Your task to perform on an android device: change keyboard looks Image 0: 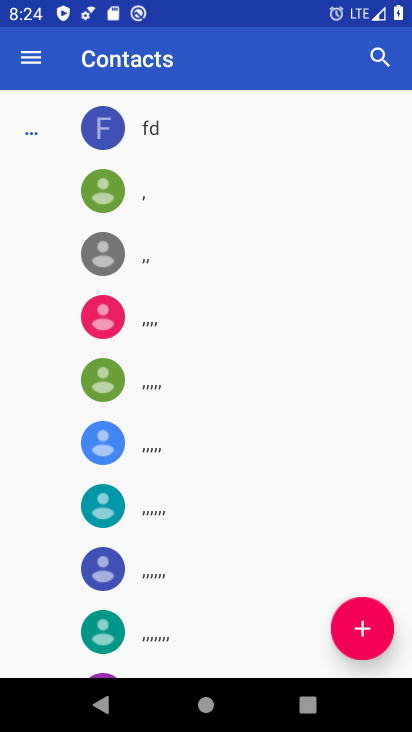
Step 0: press back button
Your task to perform on an android device: change keyboard looks Image 1: 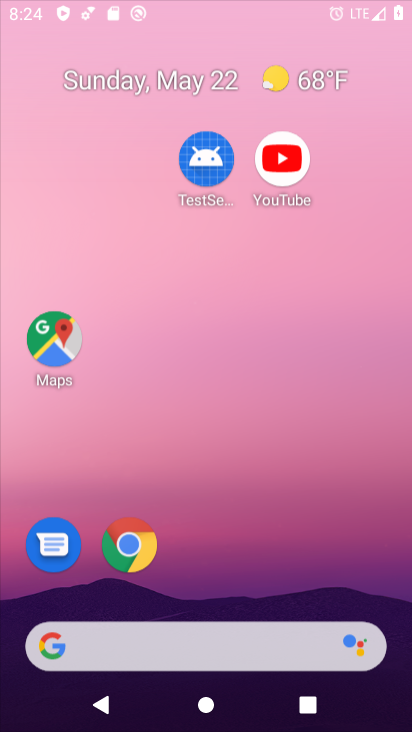
Step 1: press home button
Your task to perform on an android device: change keyboard looks Image 2: 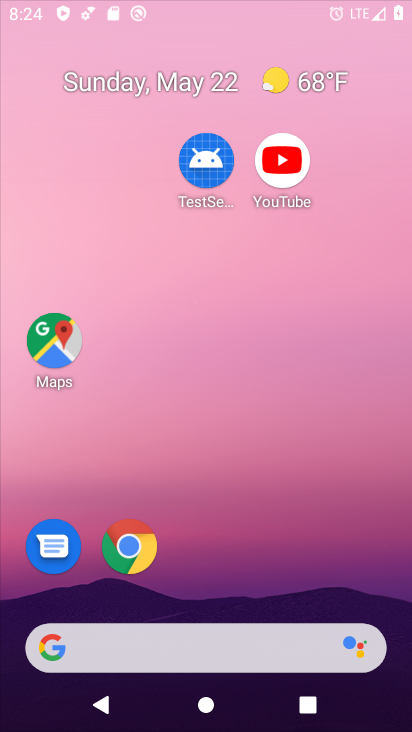
Step 2: press home button
Your task to perform on an android device: change keyboard looks Image 3: 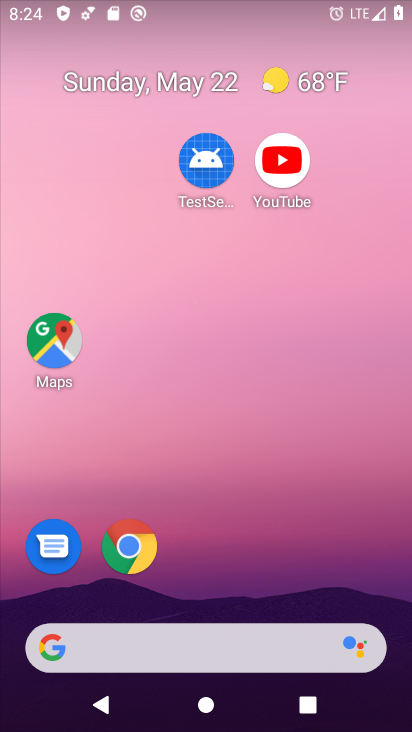
Step 3: press home button
Your task to perform on an android device: change keyboard looks Image 4: 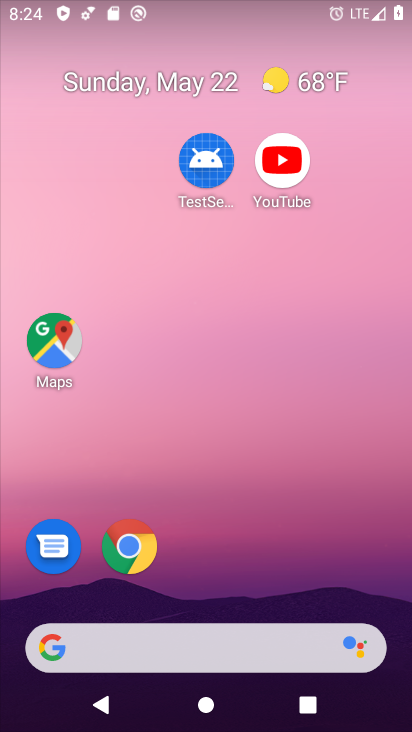
Step 4: drag from (293, 695) to (133, 144)
Your task to perform on an android device: change keyboard looks Image 5: 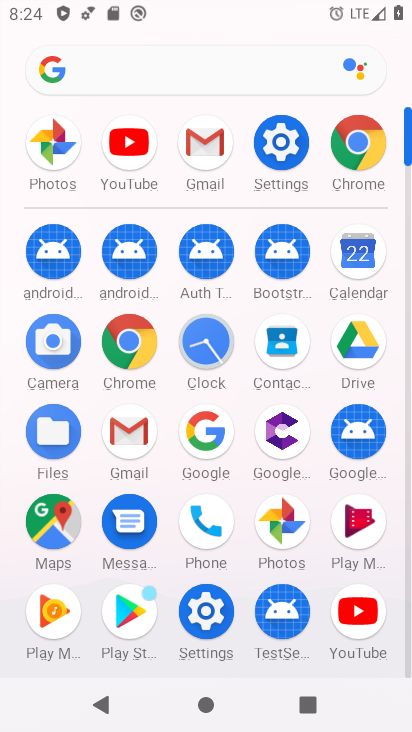
Step 5: click (277, 145)
Your task to perform on an android device: change keyboard looks Image 6: 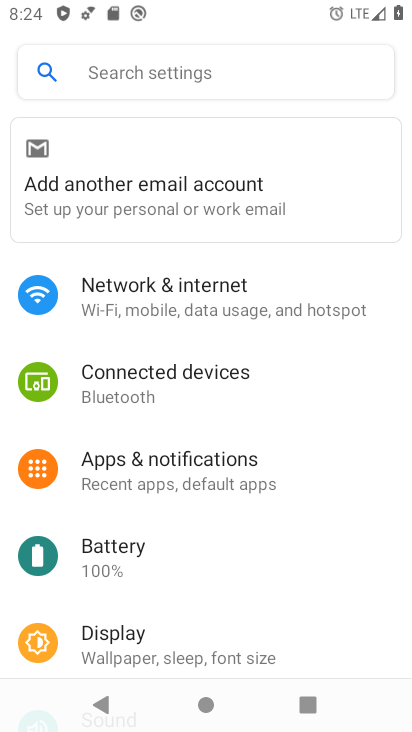
Step 6: drag from (218, 572) to (206, 114)
Your task to perform on an android device: change keyboard looks Image 7: 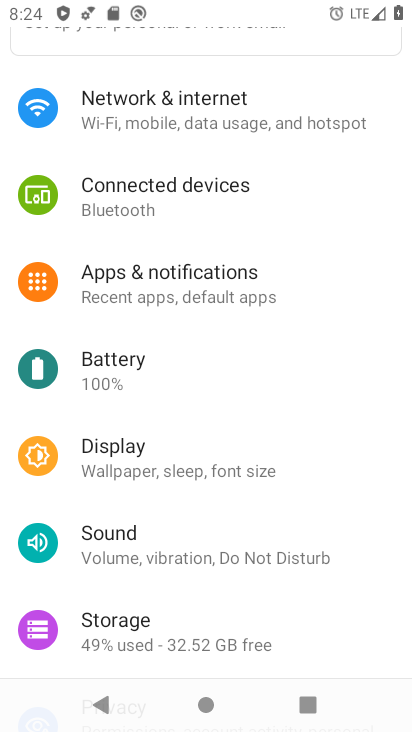
Step 7: drag from (190, 406) to (190, 151)
Your task to perform on an android device: change keyboard looks Image 8: 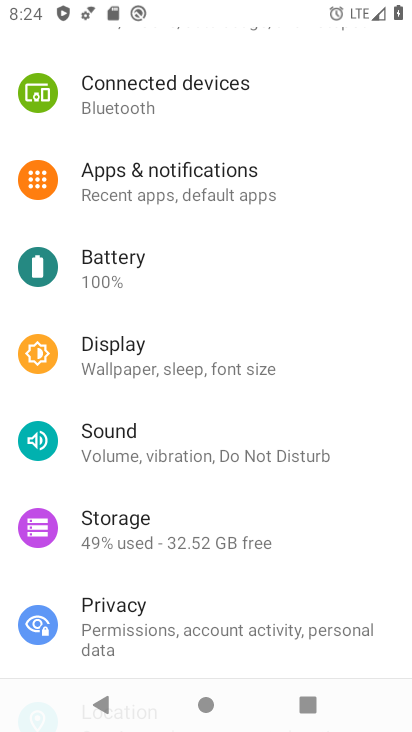
Step 8: drag from (204, 440) to (204, 123)
Your task to perform on an android device: change keyboard looks Image 9: 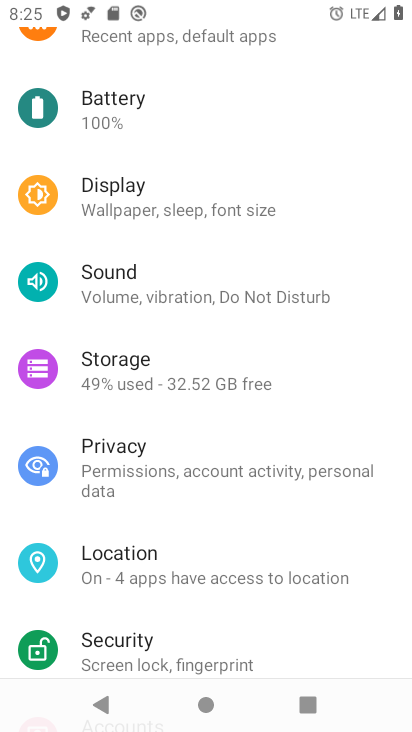
Step 9: drag from (178, 485) to (94, 214)
Your task to perform on an android device: change keyboard looks Image 10: 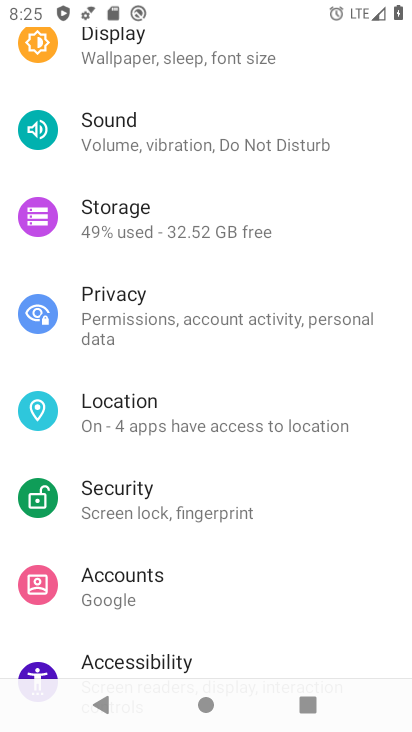
Step 10: drag from (99, 533) to (99, 256)
Your task to perform on an android device: change keyboard looks Image 11: 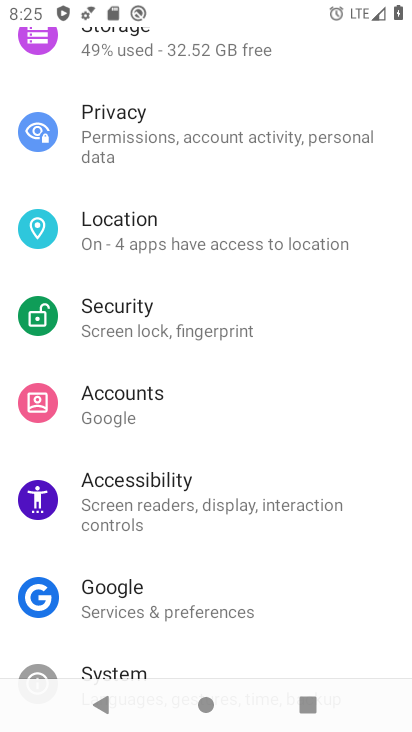
Step 11: drag from (173, 448) to (163, 136)
Your task to perform on an android device: change keyboard looks Image 12: 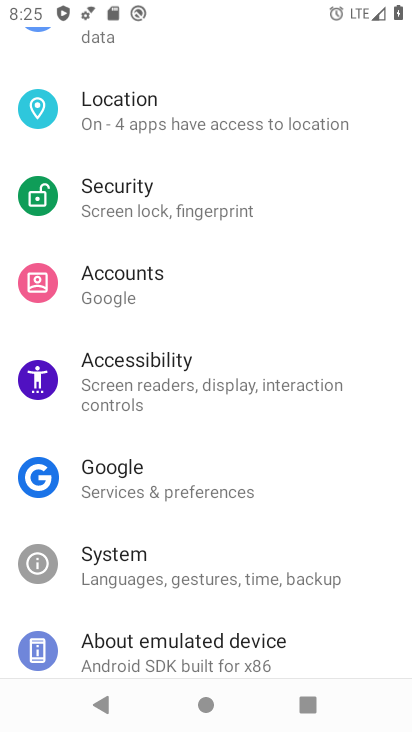
Step 12: click (114, 575)
Your task to perform on an android device: change keyboard looks Image 13: 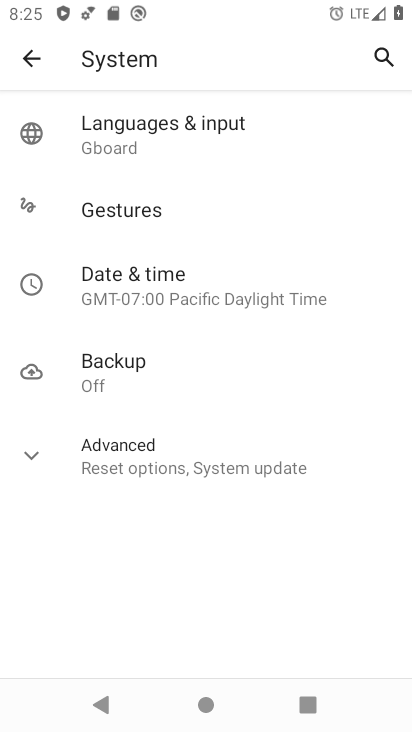
Step 13: click (107, 140)
Your task to perform on an android device: change keyboard looks Image 14: 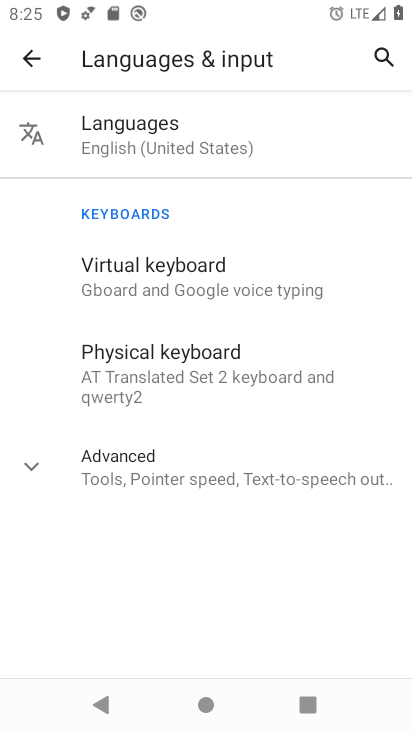
Step 14: click (139, 288)
Your task to perform on an android device: change keyboard looks Image 15: 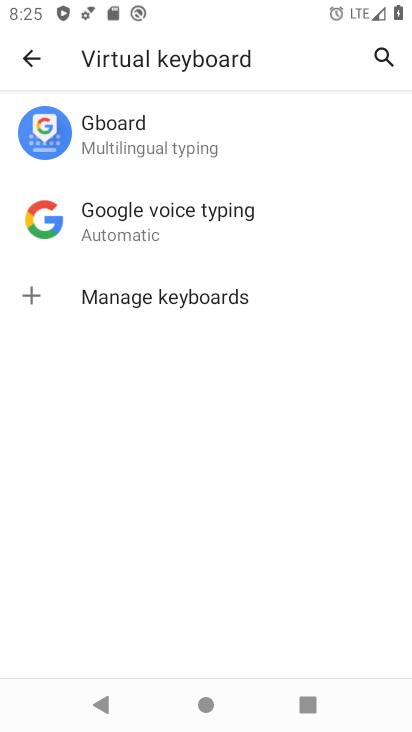
Step 15: click (106, 138)
Your task to perform on an android device: change keyboard looks Image 16: 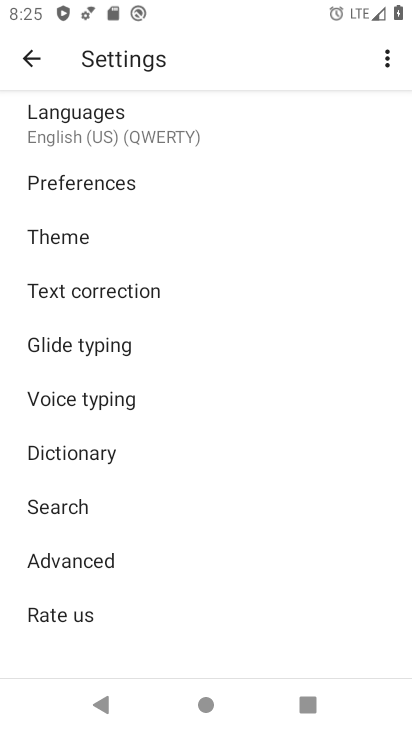
Step 16: click (69, 246)
Your task to perform on an android device: change keyboard looks Image 17: 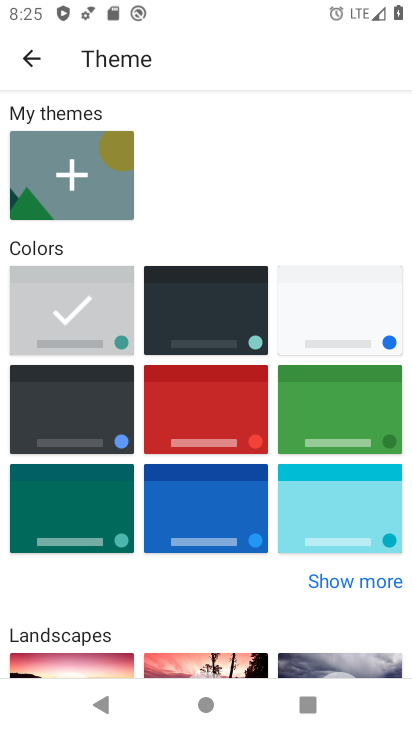
Step 17: click (109, 419)
Your task to perform on an android device: change keyboard looks Image 18: 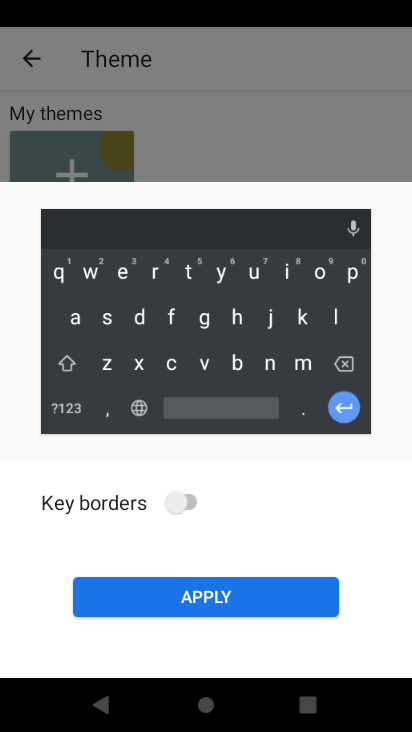
Step 18: click (225, 609)
Your task to perform on an android device: change keyboard looks Image 19: 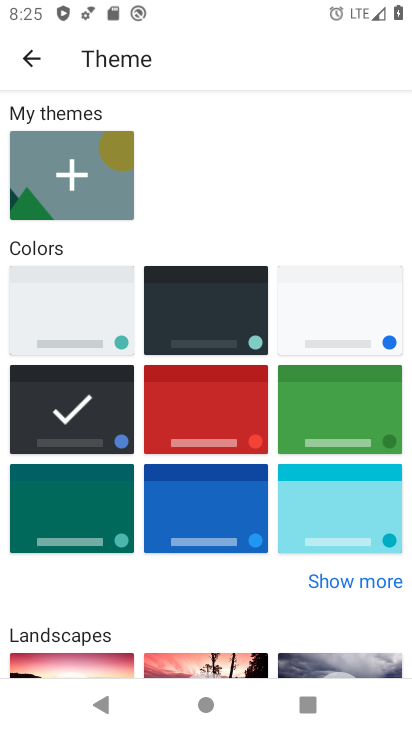
Step 19: task complete